Your task to perform on an android device: delete the emails in spam in the gmail app Image 0: 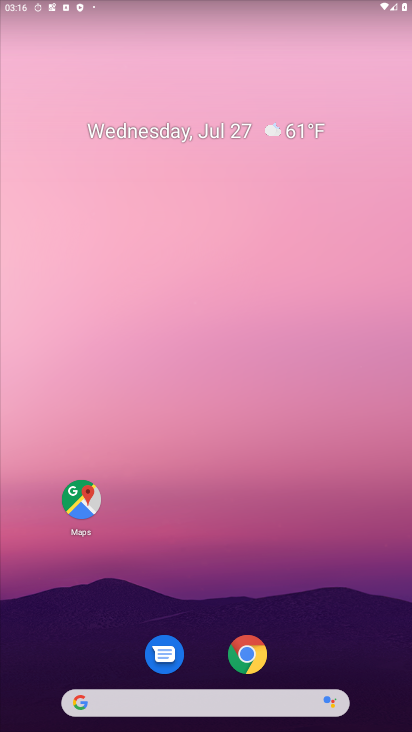
Step 0: drag from (175, 701) to (189, 125)
Your task to perform on an android device: delete the emails in spam in the gmail app Image 1: 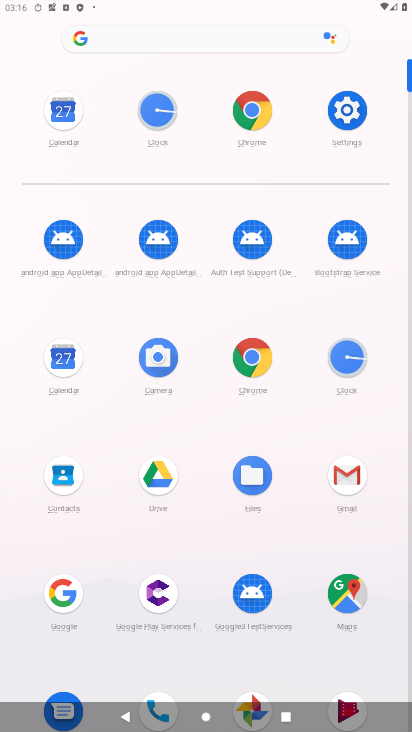
Step 1: click (339, 469)
Your task to perform on an android device: delete the emails in spam in the gmail app Image 2: 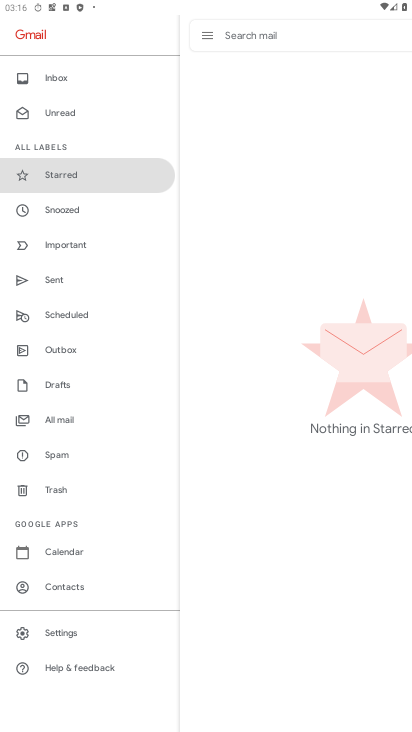
Step 2: click (70, 458)
Your task to perform on an android device: delete the emails in spam in the gmail app Image 3: 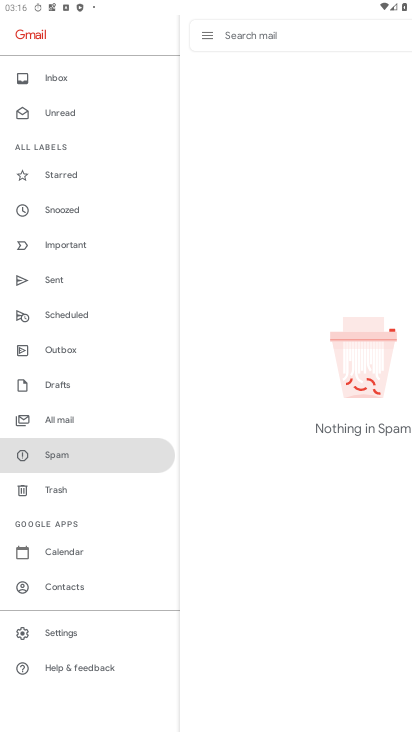
Step 3: task complete